Your task to perform on an android device: turn off location history Image 0: 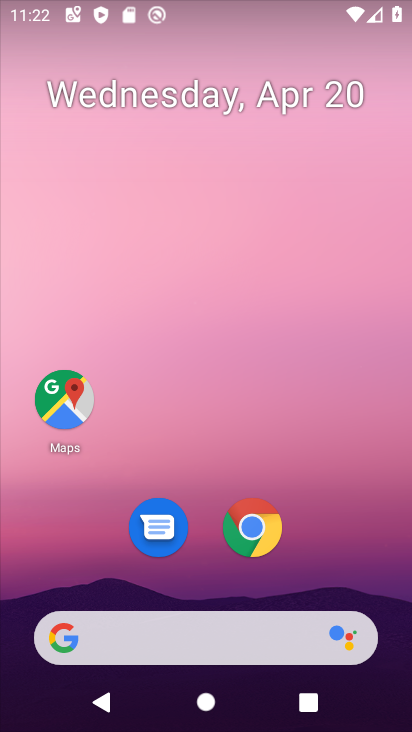
Step 0: drag from (361, 579) to (337, 78)
Your task to perform on an android device: turn off location history Image 1: 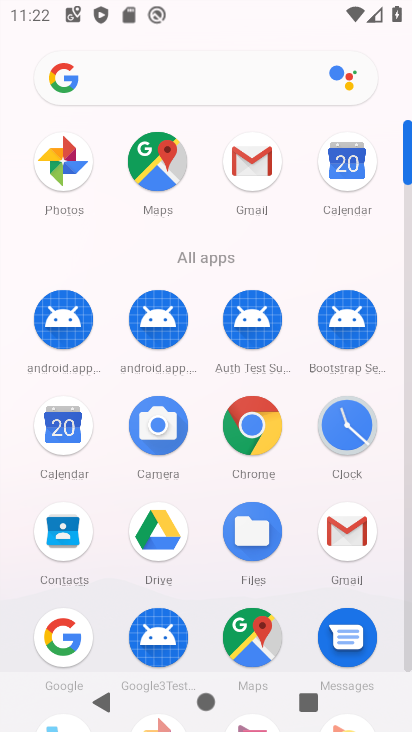
Step 1: drag from (296, 559) to (339, 53)
Your task to perform on an android device: turn off location history Image 2: 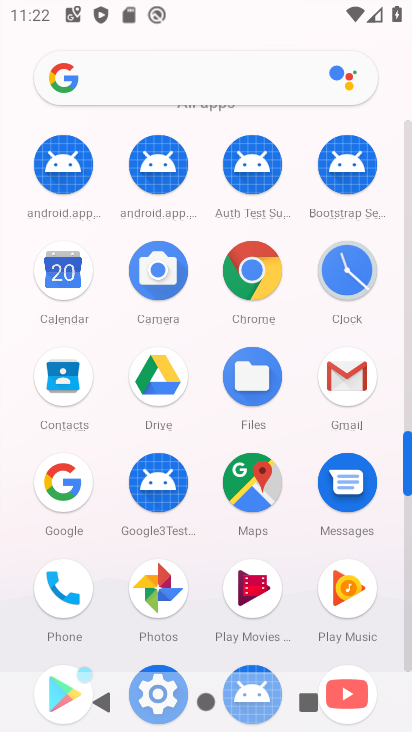
Step 2: drag from (189, 634) to (267, 226)
Your task to perform on an android device: turn off location history Image 3: 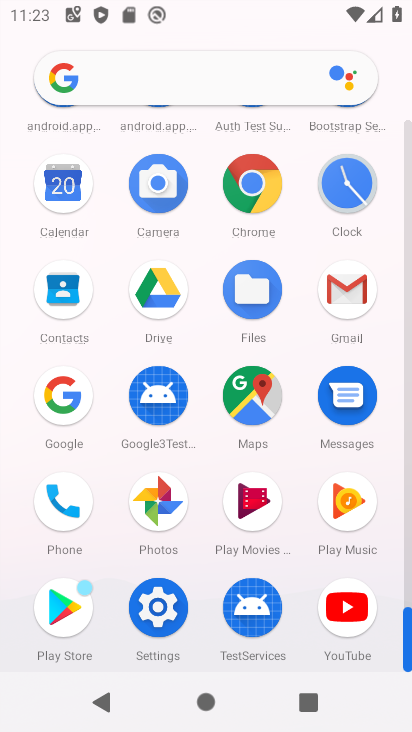
Step 3: click (147, 619)
Your task to perform on an android device: turn off location history Image 4: 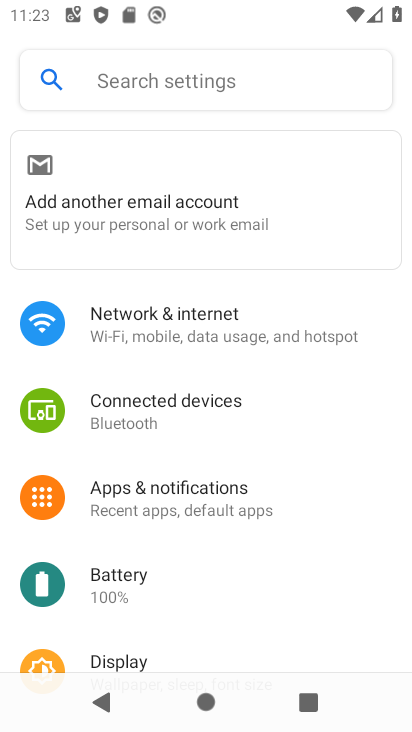
Step 4: drag from (223, 599) to (235, 107)
Your task to perform on an android device: turn off location history Image 5: 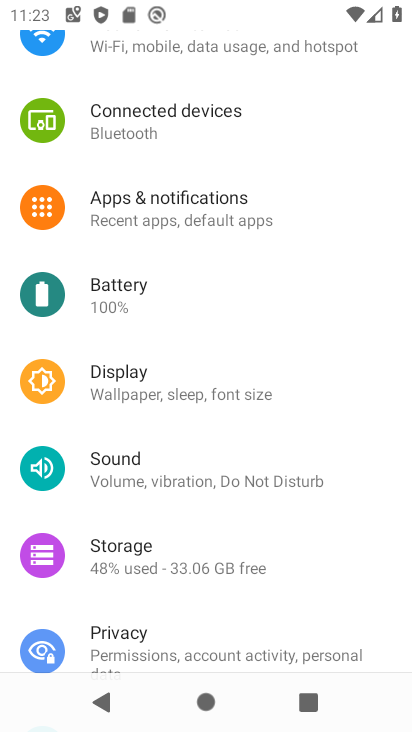
Step 5: drag from (171, 598) to (215, 187)
Your task to perform on an android device: turn off location history Image 6: 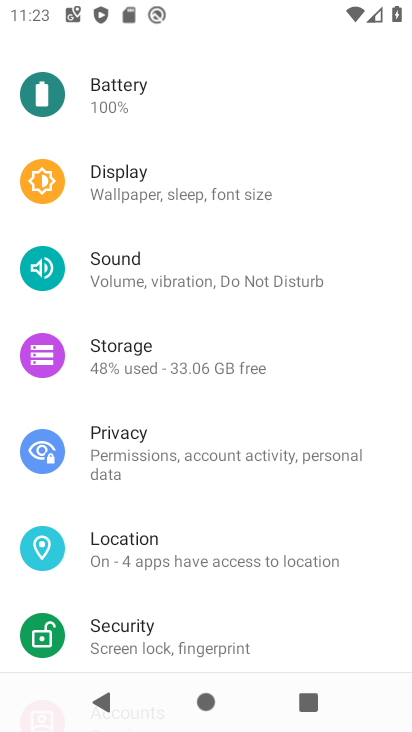
Step 6: click (160, 540)
Your task to perform on an android device: turn off location history Image 7: 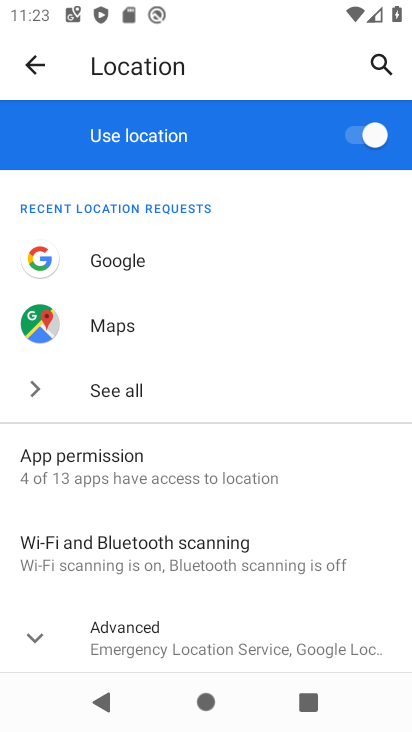
Step 7: drag from (296, 554) to (332, 85)
Your task to perform on an android device: turn off location history Image 8: 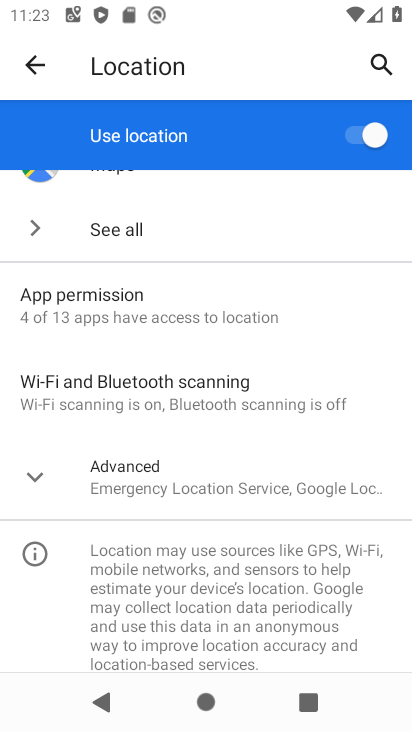
Step 8: click (148, 447)
Your task to perform on an android device: turn off location history Image 9: 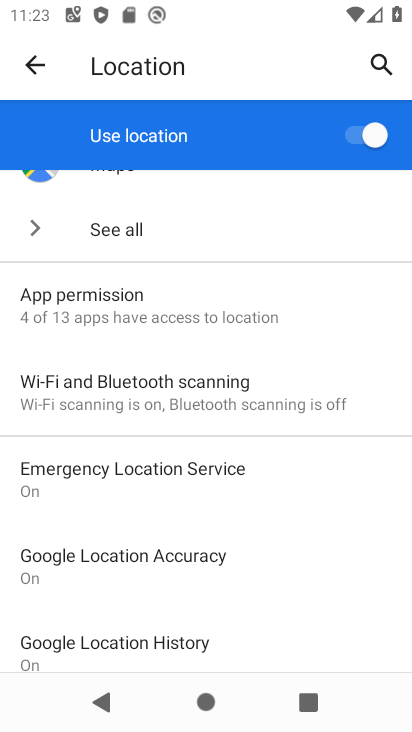
Step 9: click (181, 638)
Your task to perform on an android device: turn off location history Image 10: 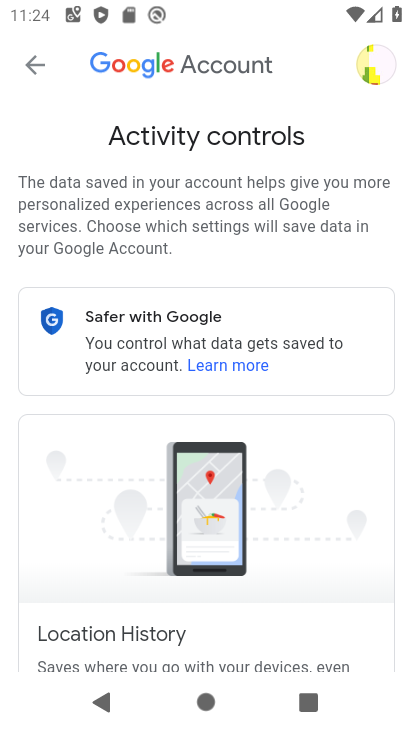
Step 10: drag from (264, 570) to (254, 82)
Your task to perform on an android device: turn off location history Image 11: 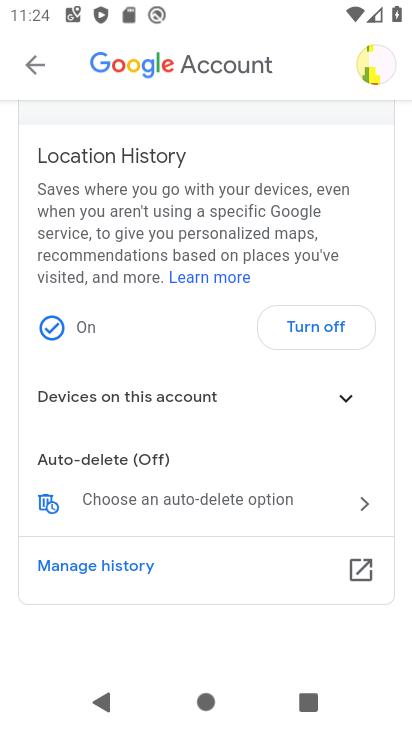
Step 11: click (330, 322)
Your task to perform on an android device: turn off location history Image 12: 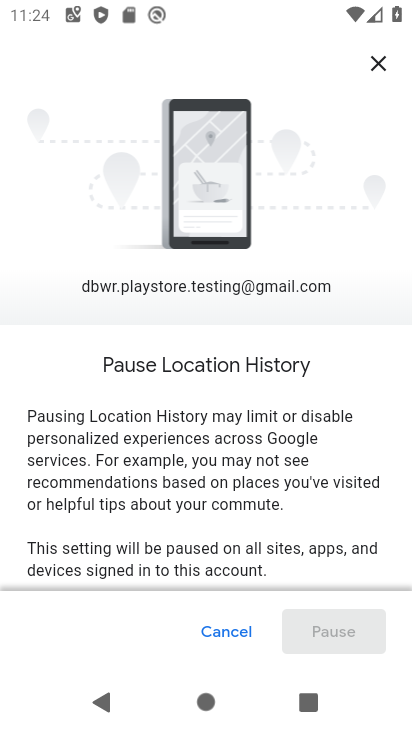
Step 12: drag from (314, 542) to (257, 47)
Your task to perform on an android device: turn off location history Image 13: 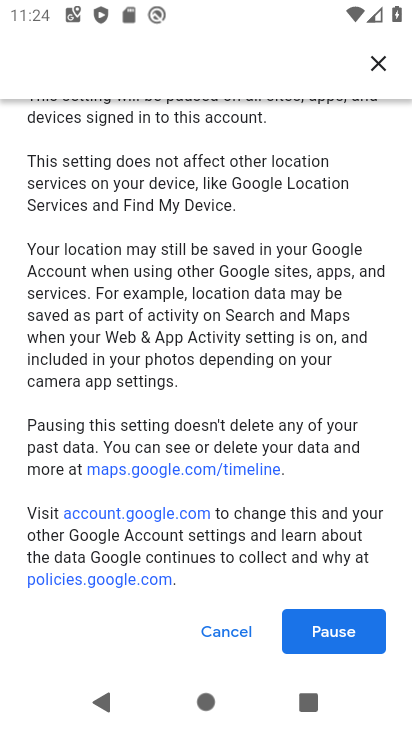
Step 13: click (340, 628)
Your task to perform on an android device: turn off location history Image 14: 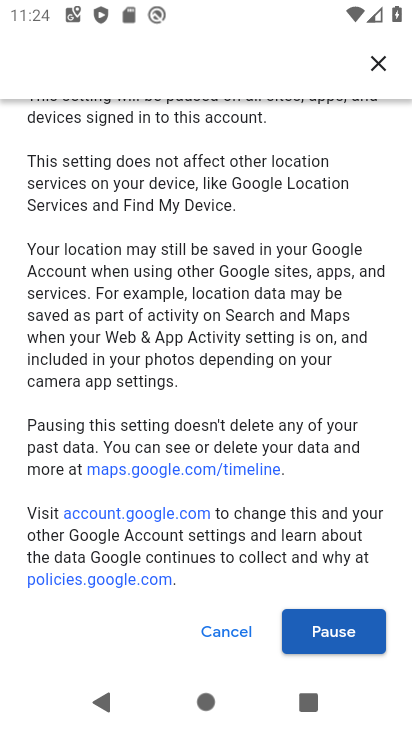
Step 14: click (341, 629)
Your task to perform on an android device: turn off location history Image 15: 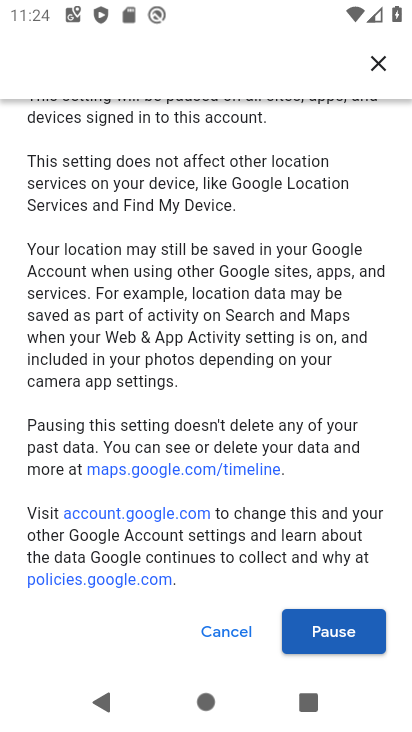
Step 15: click (342, 630)
Your task to perform on an android device: turn off location history Image 16: 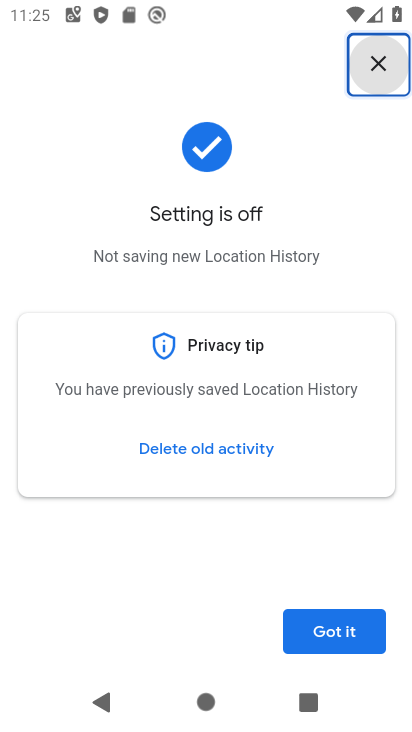
Step 16: task complete